Your task to perform on an android device: Search for pizza restaurants on Maps Image 0: 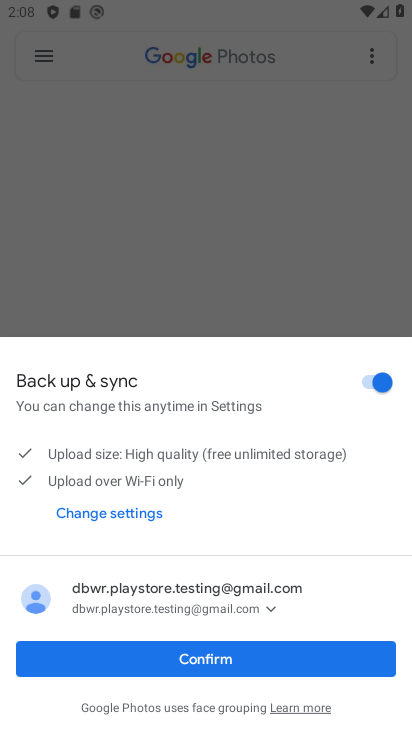
Step 0: press back button
Your task to perform on an android device: Search for pizza restaurants on Maps Image 1: 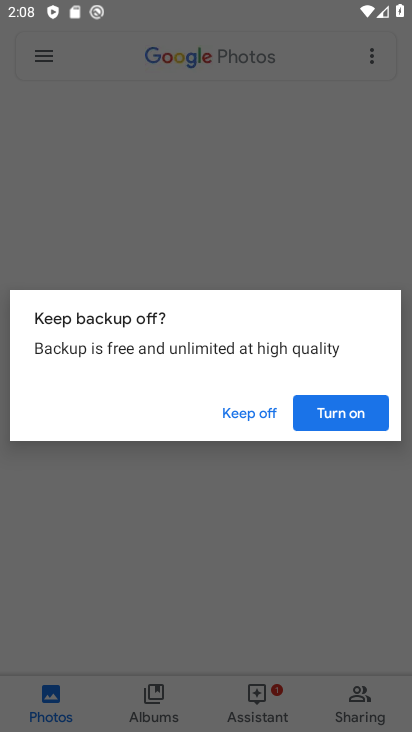
Step 1: press home button
Your task to perform on an android device: Search for pizza restaurants on Maps Image 2: 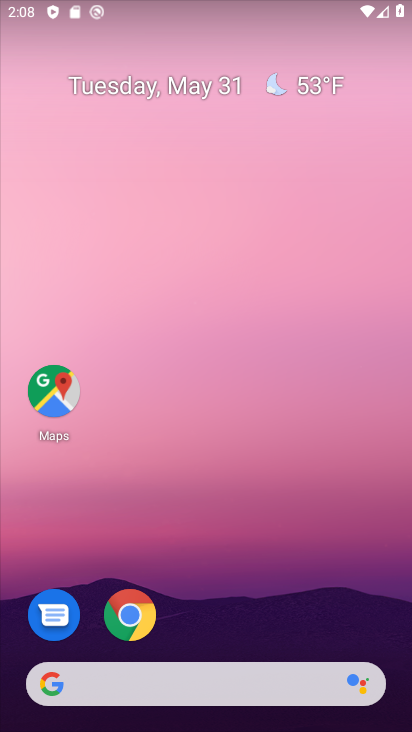
Step 2: click (64, 393)
Your task to perform on an android device: Search for pizza restaurants on Maps Image 3: 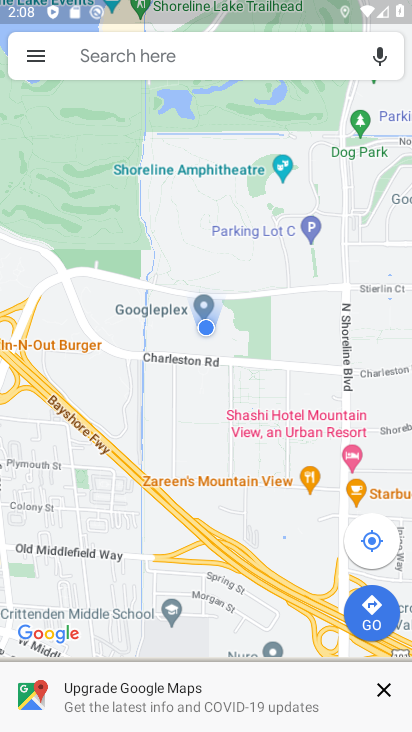
Step 3: click (141, 63)
Your task to perform on an android device: Search for pizza restaurants on Maps Image 4: 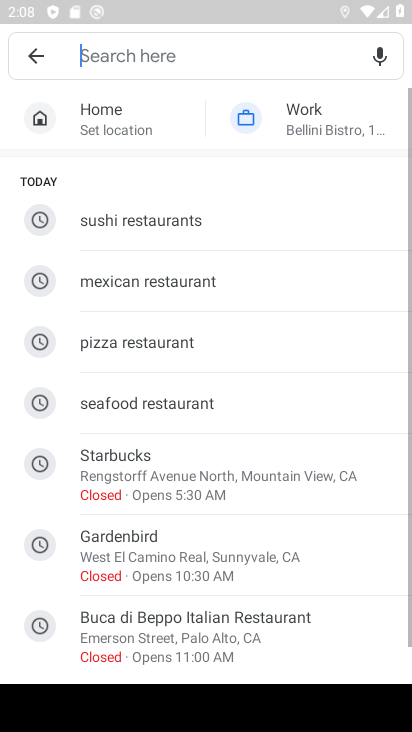
Step 4: click (123, 342)
Your task to perform on an android device: Search for pizza restaurants on Maps Image 5: 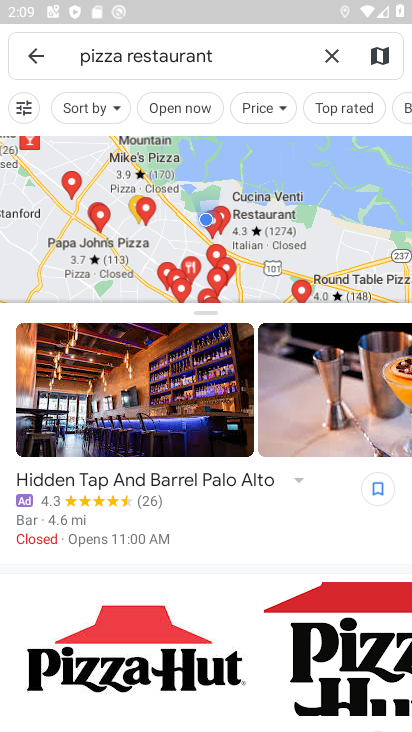
Step 5: task complete